Your task to perform on an android device: Open Youtube and go to the subscriptions tab Image 0: 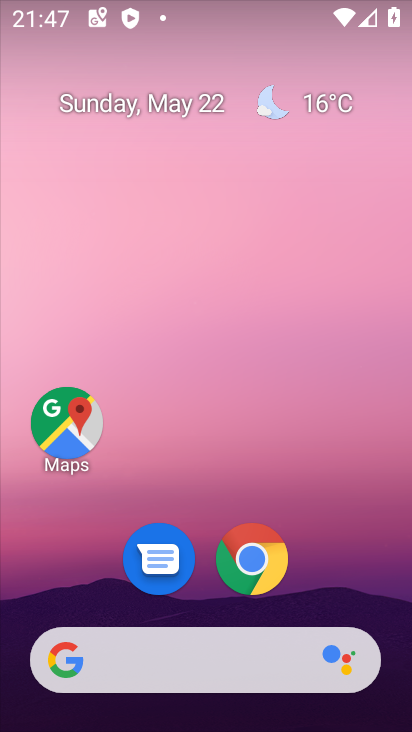
Step 0: press home button
Your task to perform on an android device: Open Youtube and go to the subscriptions tab Image 1: 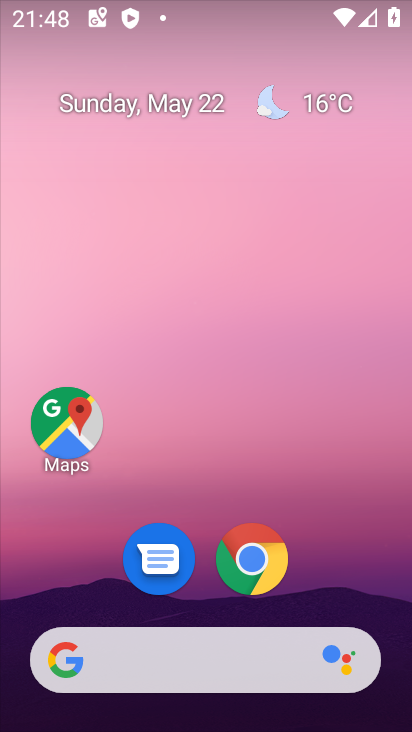
Step 1: drag from (282, 616) to (309, 221)
Your task to perform on an android device: Open Youtube and go to the subscriptions tab Image 2: 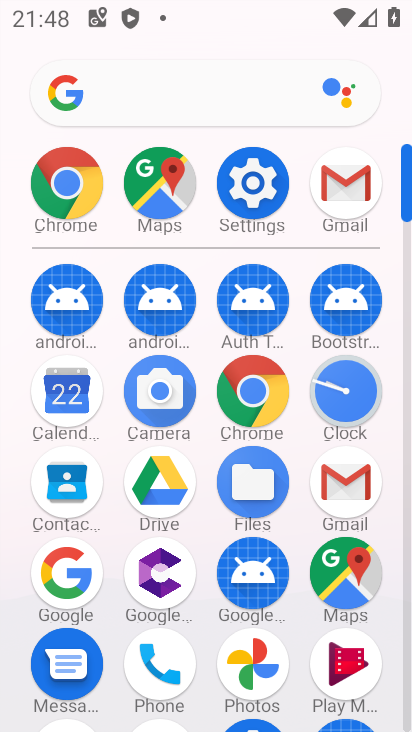
Step 2: drag from (101, 542) to (99, 377)
Your task to perform on an android device: Open Youtube and go to the subscriptions tab Image 3: 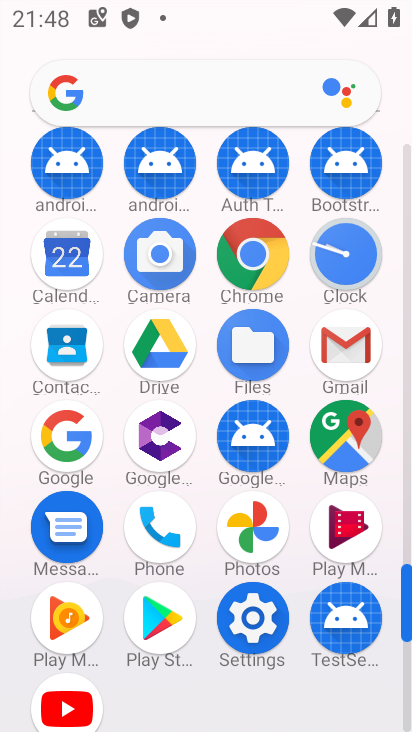
Step 3: click (61, 700)
Your task to perform on an android device: Open Youtube and go to the subscriptions tab Image 4: 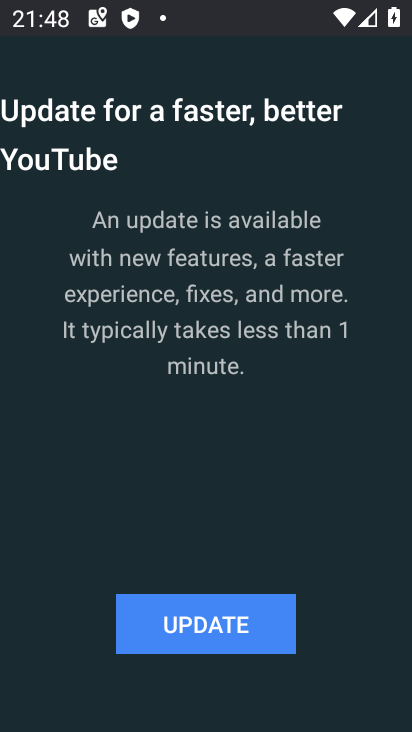
Step 4: click (212, 632)
Your task to perform on an android device: Open Youtube and go to the subscriptions tab Image 5: 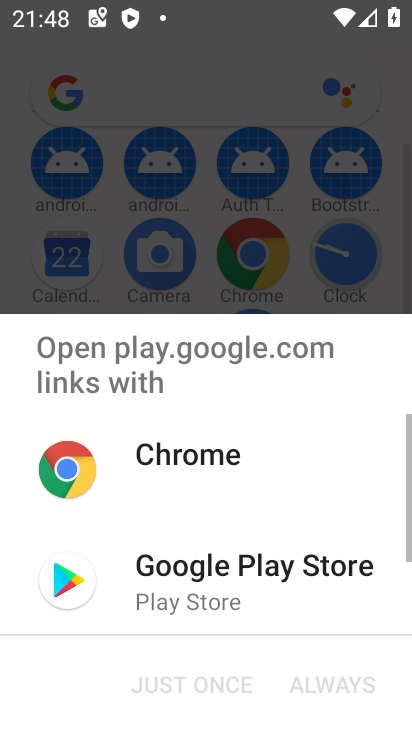
Step 5: click (183, 558)
Your task to perform on an android device: Open Youtube and go to the subscriptions tab Image 6: 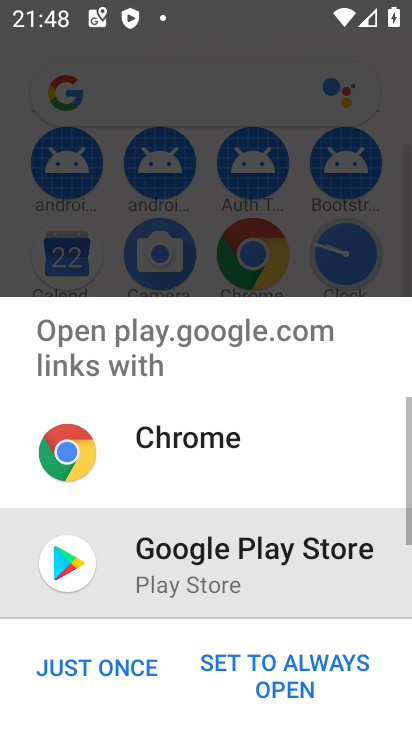
Step 6: click (121, 677)
Your task to perform on an android device: Open Youtube and go to the subscriptions tab Image 7: 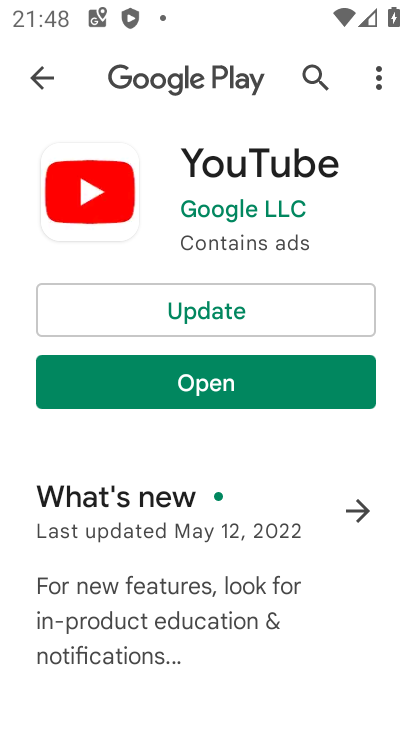
Step 7: click (198, 303)
Your task to perform on an android device: Open Youtube and go to the subscriptions tab Image 8: 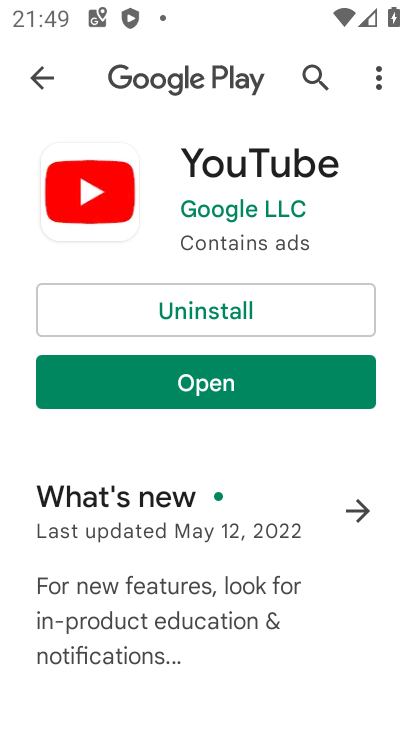
Step 8: click (228, 364)
Your task to perform on an android device: Open Youtube and go to the subscriptions tab Image 9: 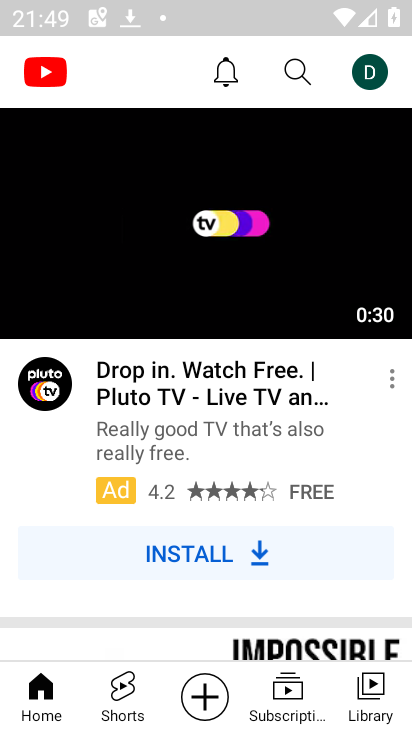
Step 9: click (287, 693)
Your task to perform on an android device: Open Youtube and go to the subscriptions tab Image 10: 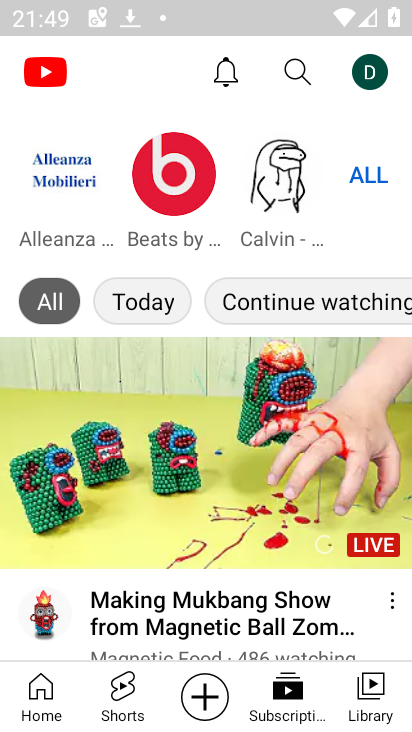
Step 10: task complete